Your task to perform on an android device: Open Google Chrome and click the shortcut for Amazon.com Image 0: 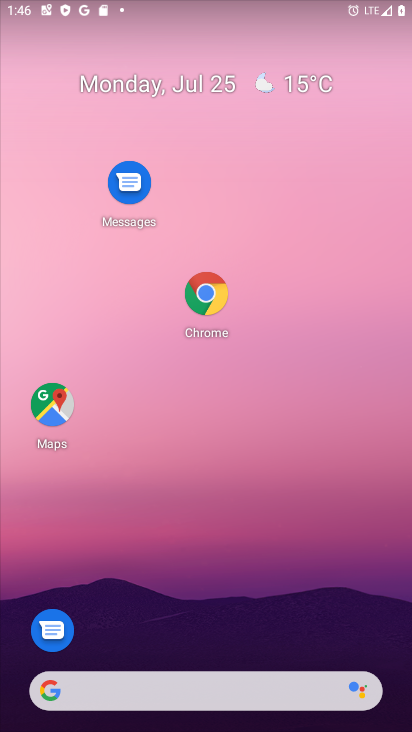
Step 0: drag from (219, 586) to (316, 110)
Your task to perform on an android device: Open Google Chrome and click the shortcut for Amazon.com Image 1: 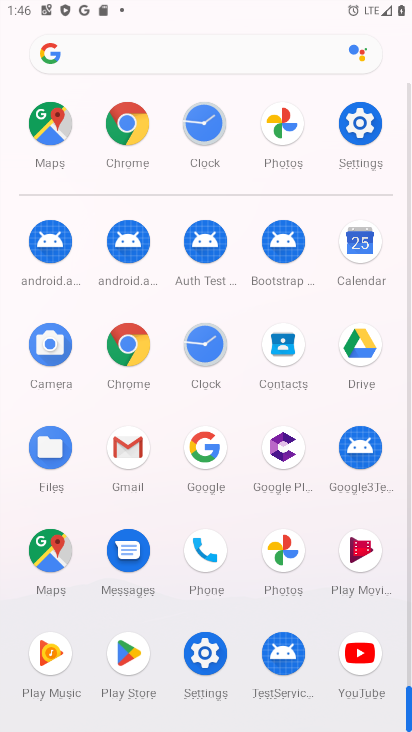
Step 1: click (137, 347)
Your task to perform on an android device: Open Google Chrome and click the shortcut for Amazon.com Image 2: 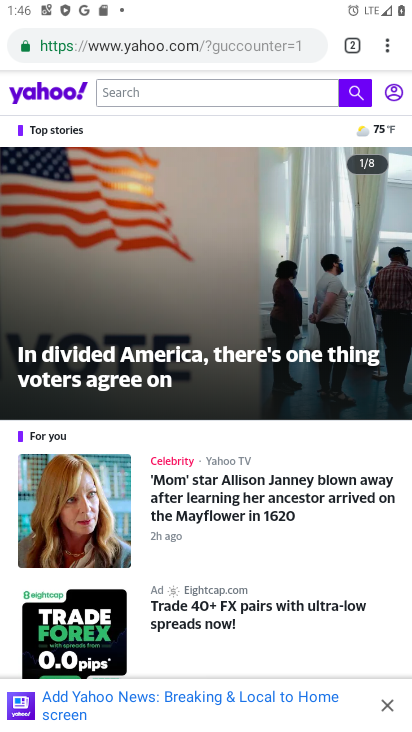
Step 2: click (155, 45)
Your task to perform on an android device: Open Google Chrome and click the shortcut for Amazon.com Image 3: 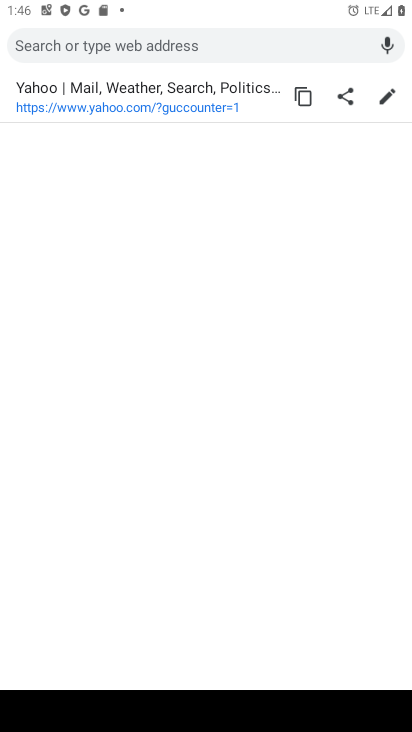
Step 3: type ""
Your task to perform on an android device: Open Google Chrome and click the shortcut for Amazon.com Image 4: 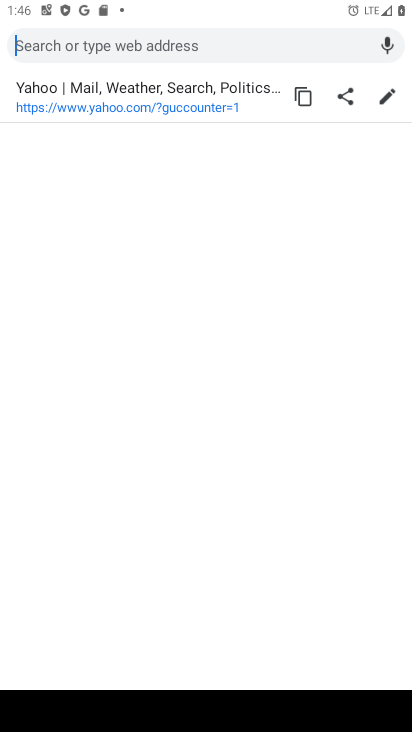
Step 4: type "Amazon.com"
Your task to perform on an android device: Open Google Chrome and click the shortcut for Amazon.com Image 5: 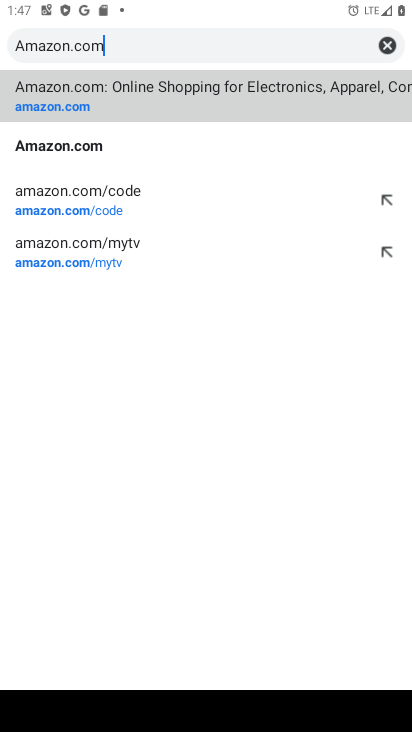
Step 5: click (73, 102)
Your task to perform on an android device: Open Google Chrome and click the shortcut for Amazon.com Image 6: 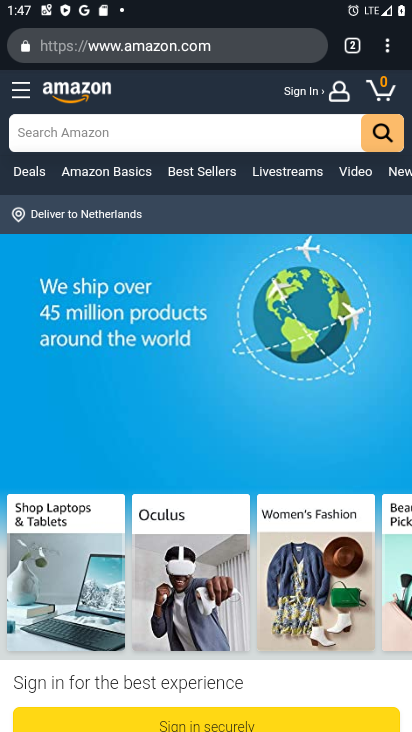
Step 6: task complete